Your task to perform on an android device: When is my next appointment? Image 0: 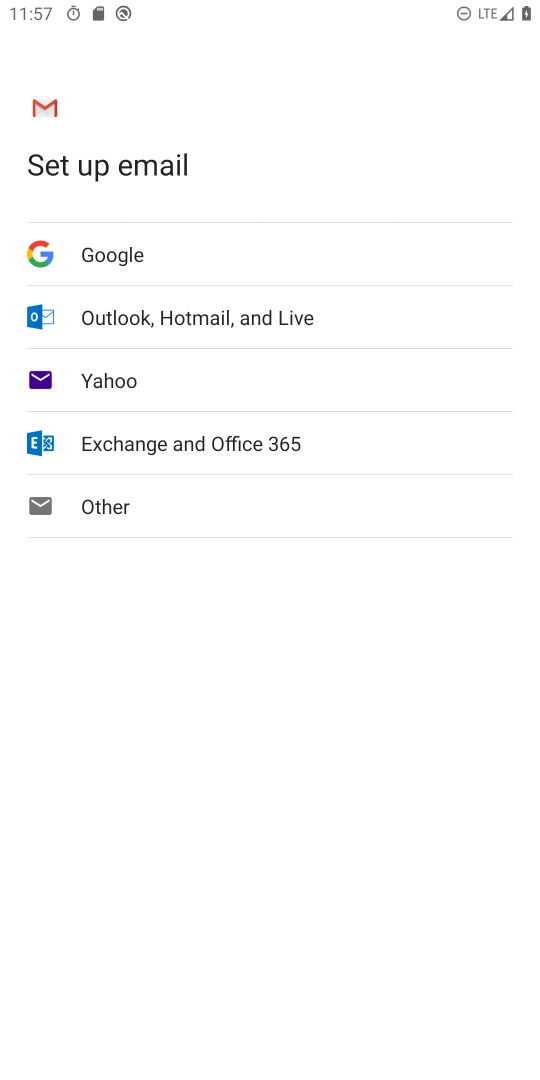
Step 0: press home button
Your task to perform on an android device: When is my next appointment? Image 1: 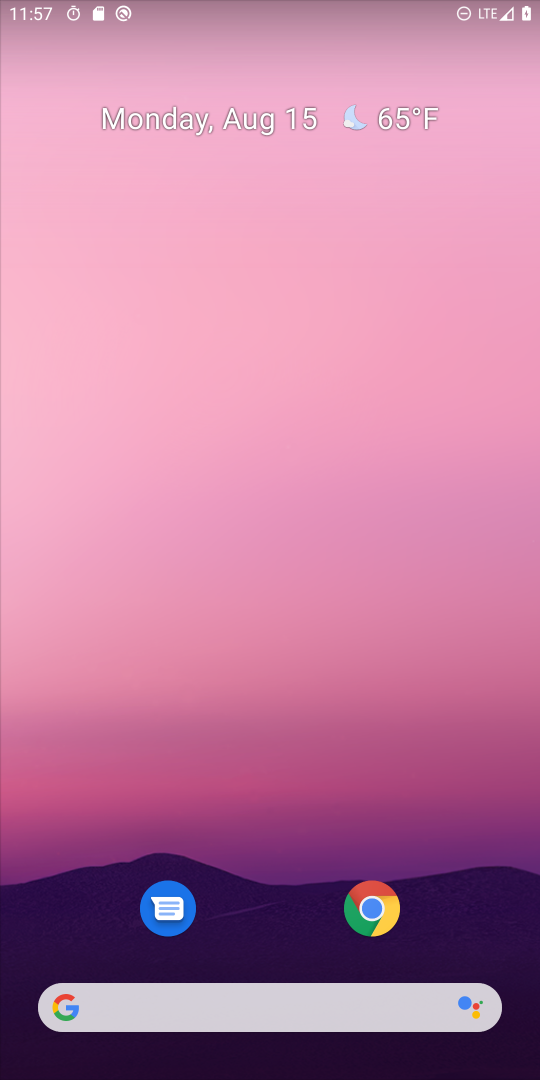
Step 1: click (165, 119)
Your task to perform on an android device: When is my next appointment? Image 2: 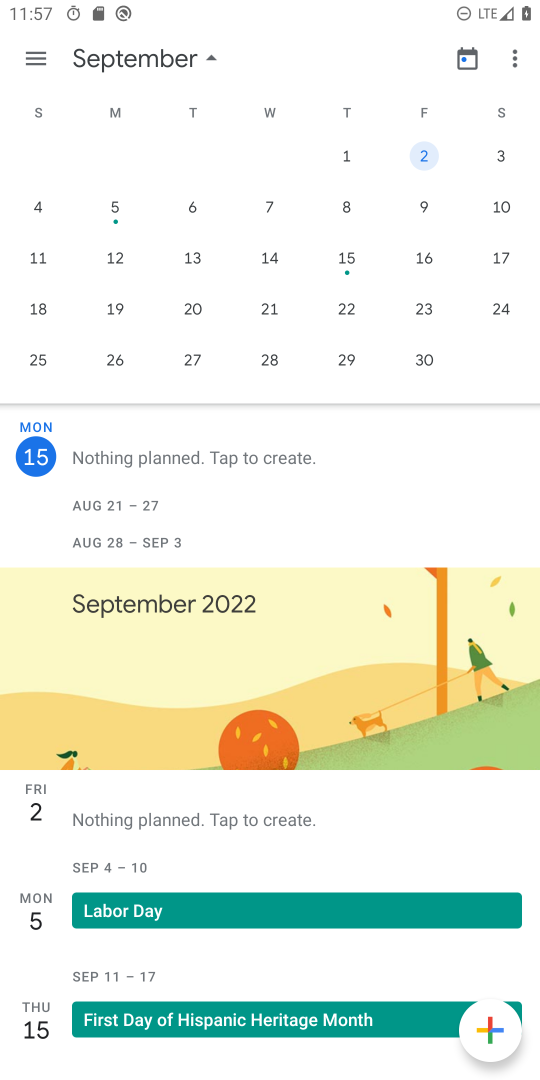
Step 2: task complete